Your task to perform on an android device: Open Youtube and go to the subscriptions tab Image 0: 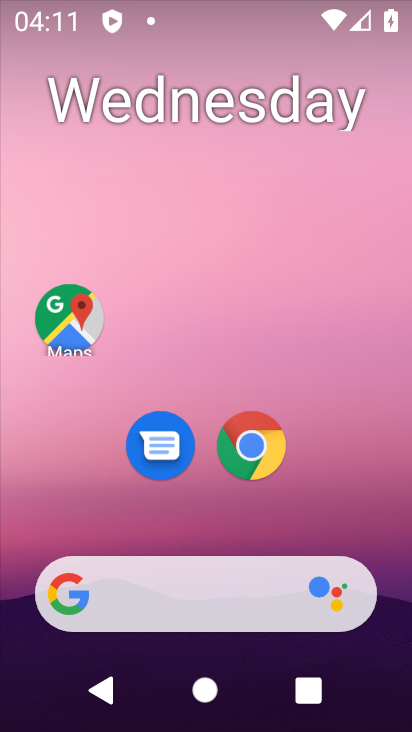
Step 0: drag from (210, 539) to (208, 128)
Your task to perform on an android device: Open Youtube and go to the subscriptions tab Image 1: 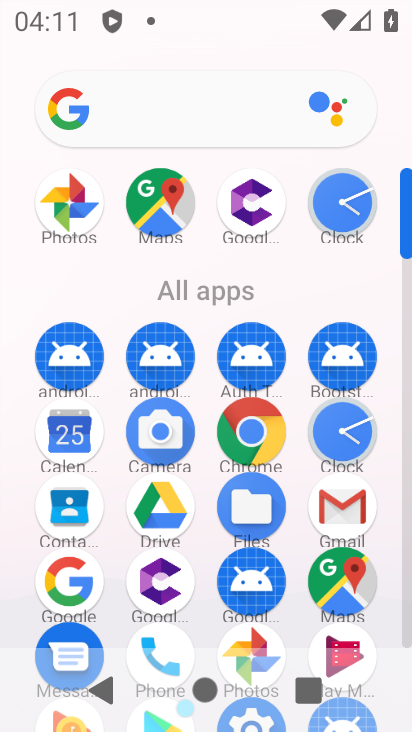
Step 1: drag from (205, 546) to (251, 185)
Your task to perform on an android device: Open Youtube and go to the subscriptions tab Image 2: 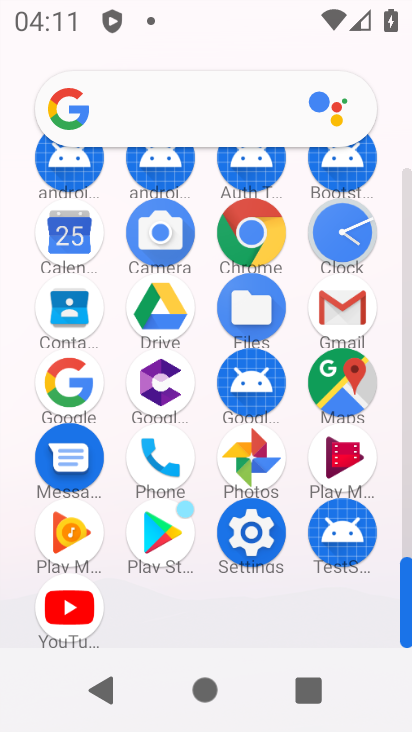
Step 2: click (51, 605)
Your task to perform on an android device: Open Youtube and go to the subscriptions tab Image 3: 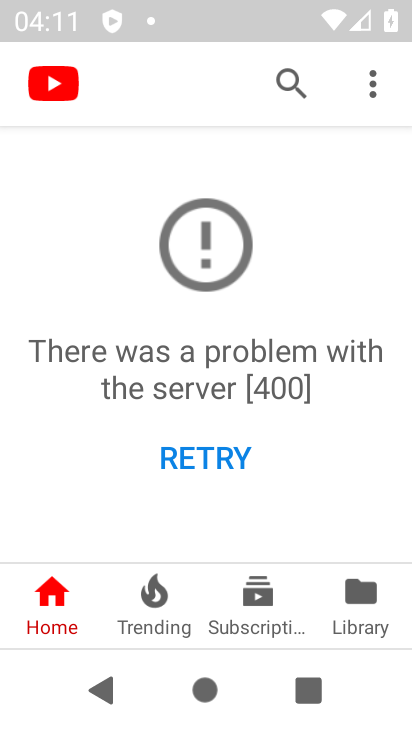
Step 3: click (258, 607)
Your task to perform on an android device: Open Youtube and go to the subscriptions tab Image 4: 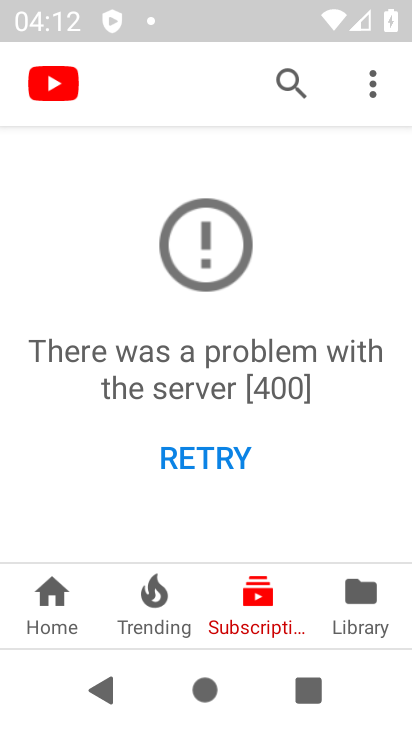
Step 4: task complete